Your task to perform on an android device: turn off wifi Image 0: 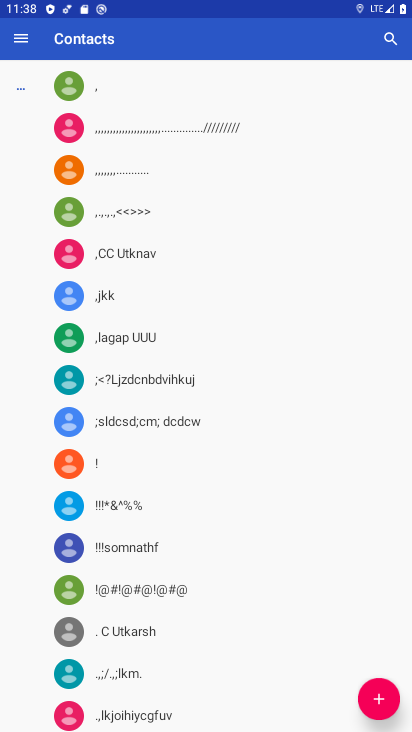
Step 0: press home button
Your task to perform on an android device: turn off wifi Image 1: 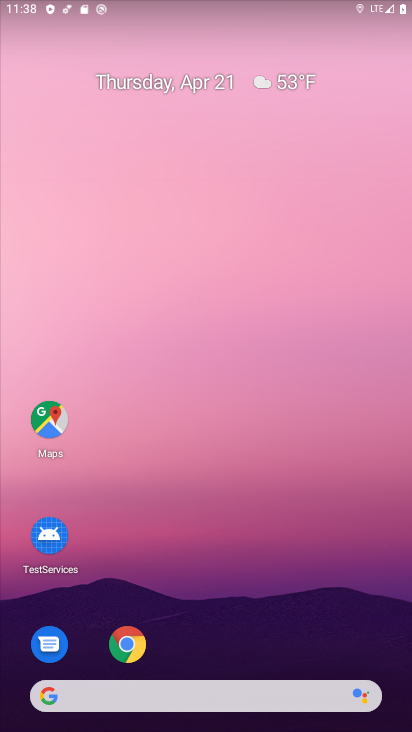
Step 1: drag from (293, 560) to (323, 116)
Your task to perform on an android device: turn off wifi Image 2: 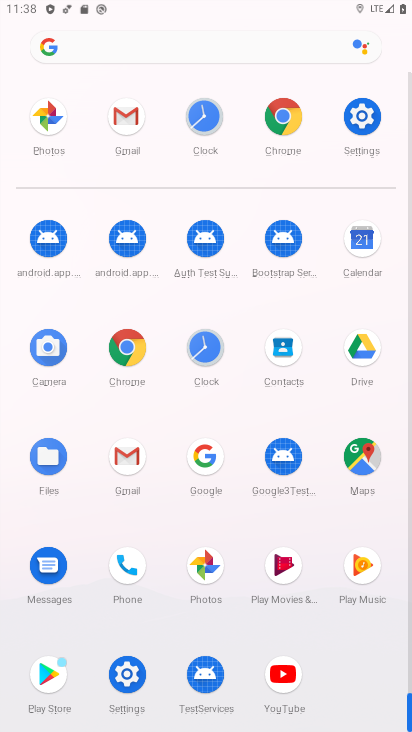
Step 2: click (367, 116)
Your task to perform on an android device: turn off wifi Image 3: 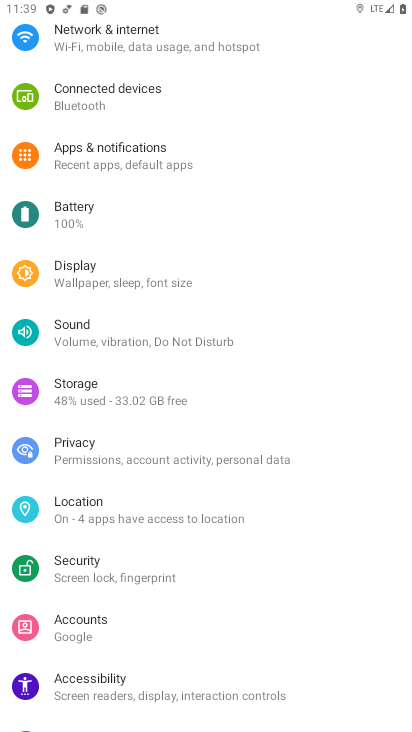
Step 3: click (206, 42)
Your task to perform on an android device: turn off wifi Image 4: 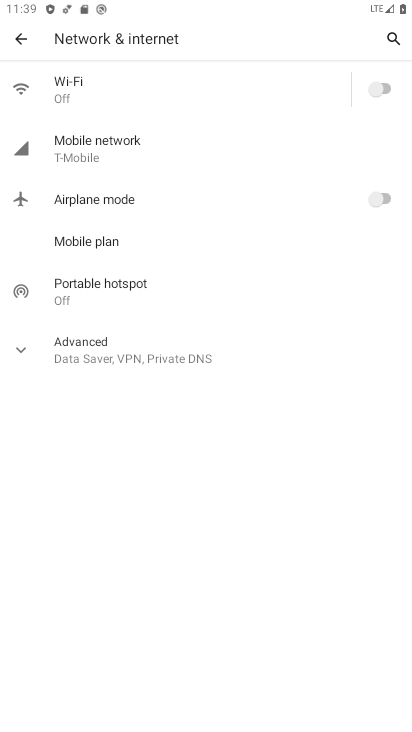
Step 4: task complete